Your task to perform on an android device: Check the news Image 0: 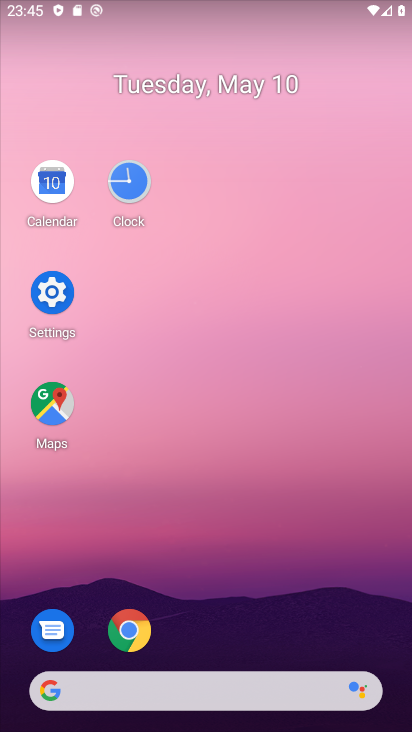
Step 0: drag from (271, 630) to (268, 26)
Your task to perform on an android device: Check the news Image 1: 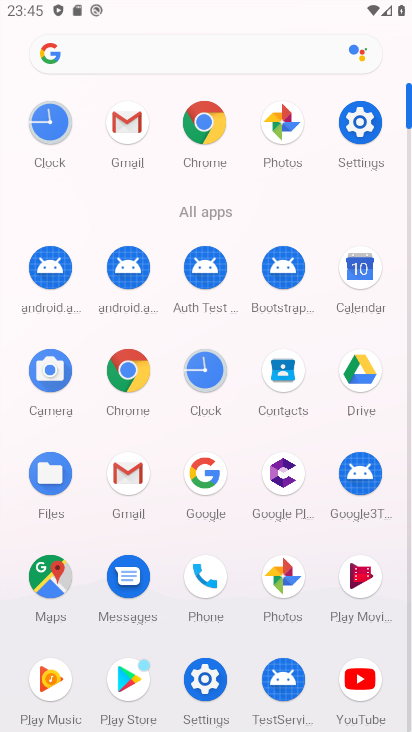
Step 1: drag from (200, 485) to (130, 326)
Your task to perform on an android device: Check the news Image 2: 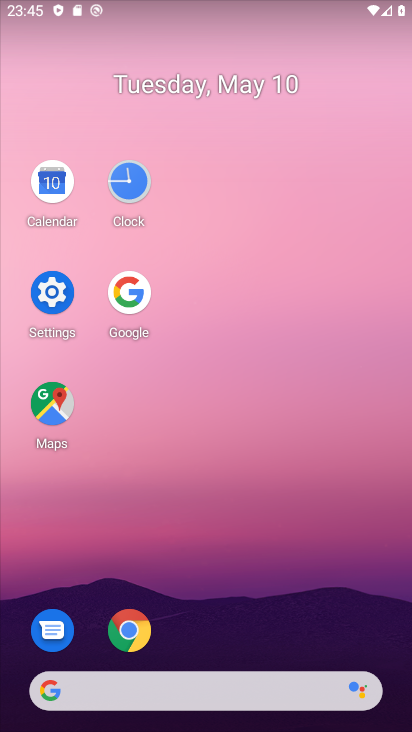
Step 2: click (134, 307)
Your task to perform on an android device: Check the news Image 3: 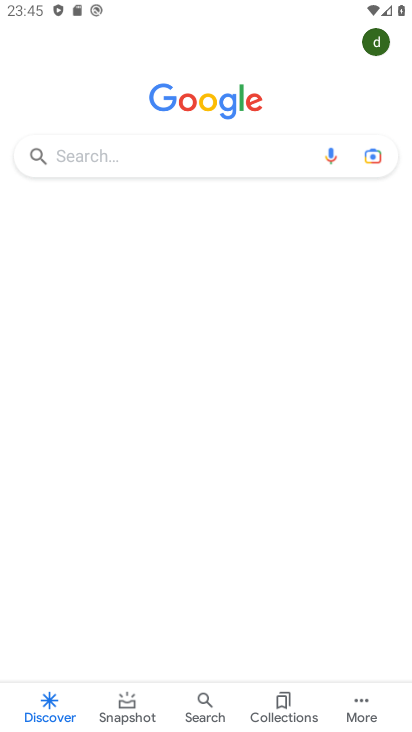
Step 3: click (192, 146)
Your task to perform on an android device: Check the news Image 4: 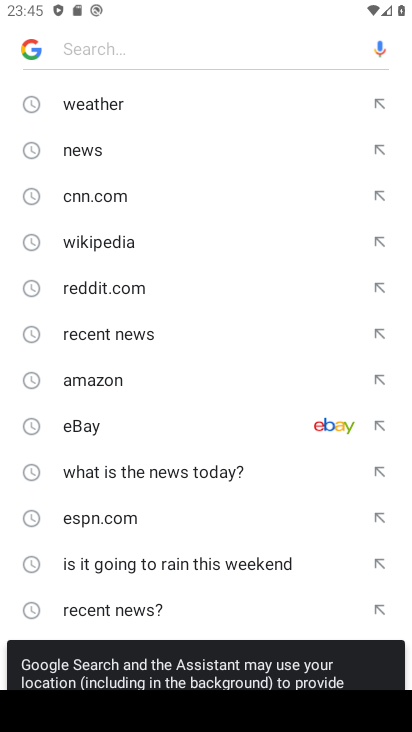
Step 4: task complete